Your task to perform on an android device: Go to eBay Image 0: 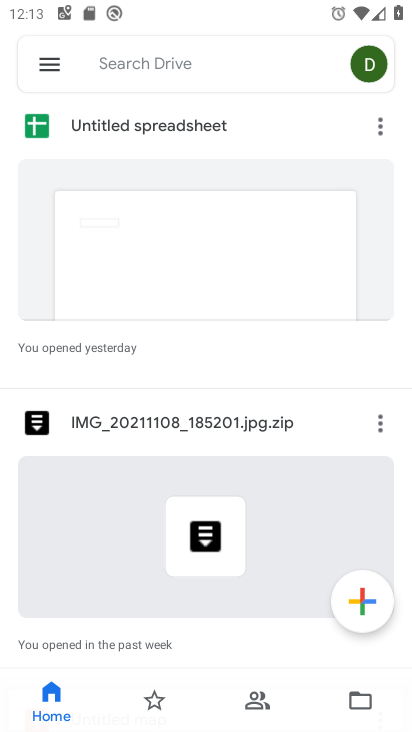
Step 0: press home button
Your task to perform on an android device: Go to eBay Image 1: 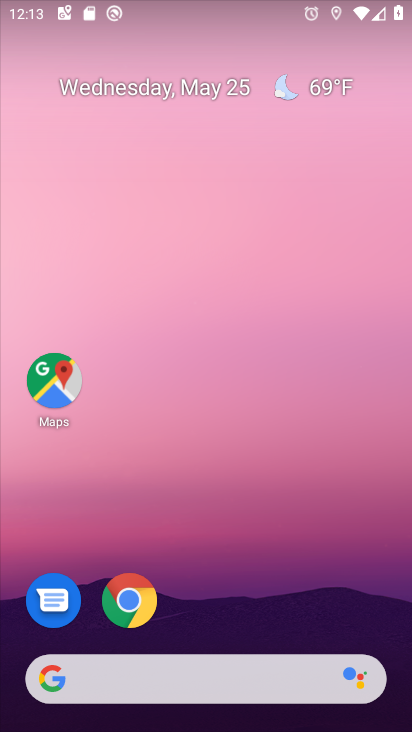
Step 1: drag from (375, 625) to (363, 225)
Your task to perform on an android device: Go to eBay Image 2: 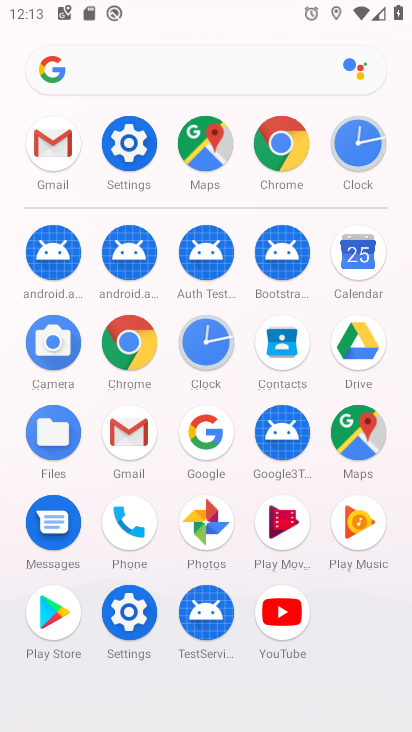
Step 2: click (139, 357)
Your task to perform on an android device: Go to eBay Image 3: 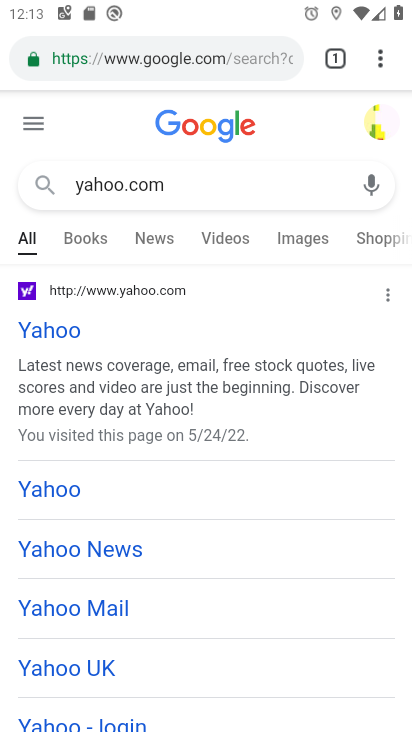
Step 3: click (208, 56)
Your task to perform on an android device: Go to eBay Image 4: 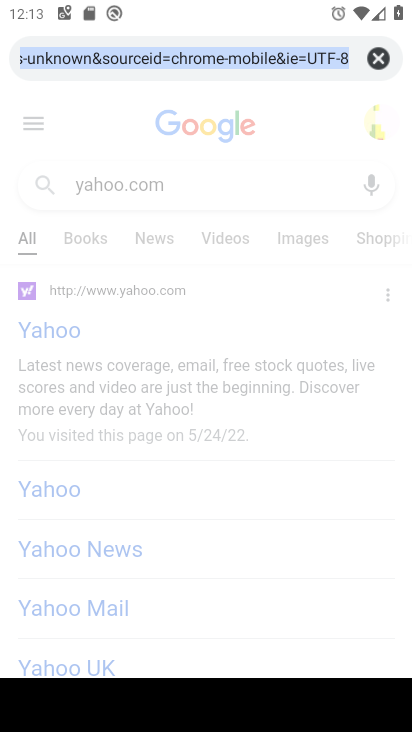
Step 4: click (384, 53)
Your task to perform on an android device: Go to eBay Image 5: 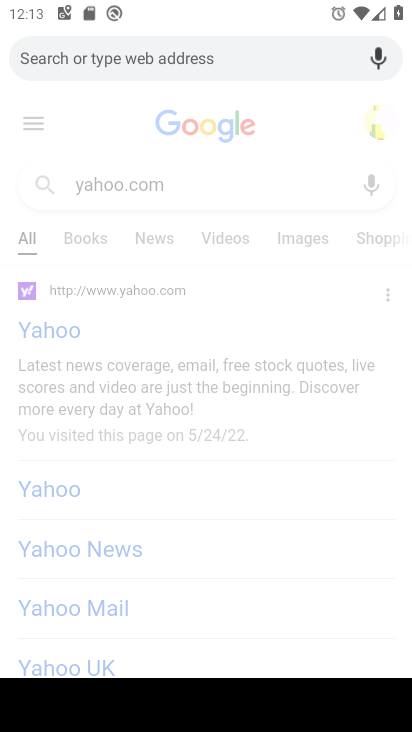
Step 5: type "ebay"
Your task to perform on an android device: Go to eBay Image 6: 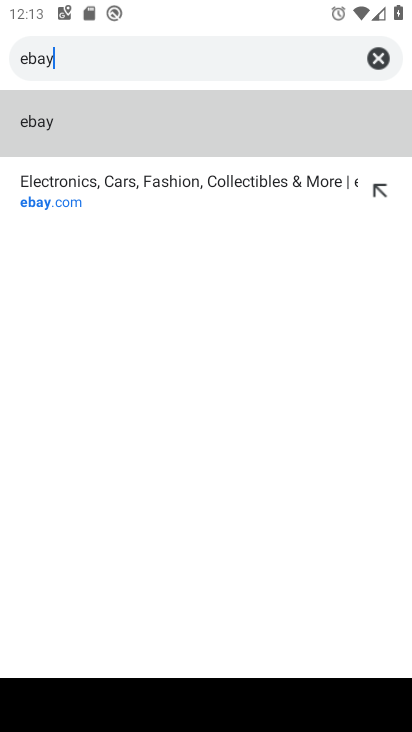
Step 6: click (196, 118)
Your task to perform on an android device: Go to eBay Image 7: 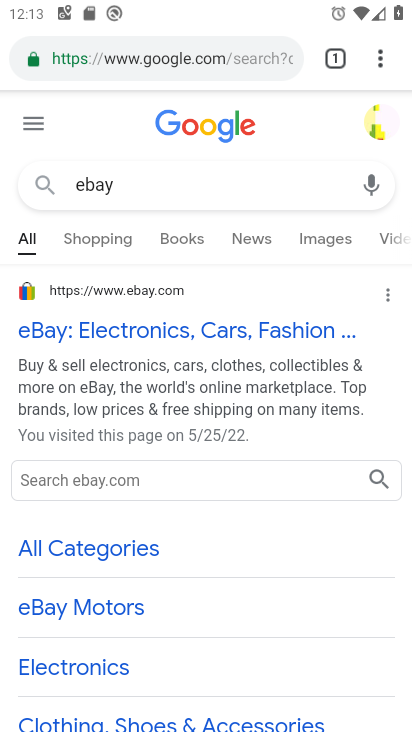
Step 7: task complete